Your task to perform on an android device: Open location settings Image 0: 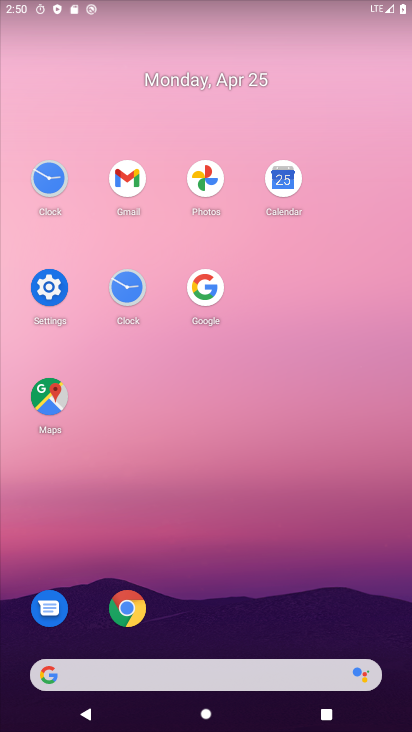
Step 0: click (53, 285)
Your task to perform on an android device: Open location settings Image 1: 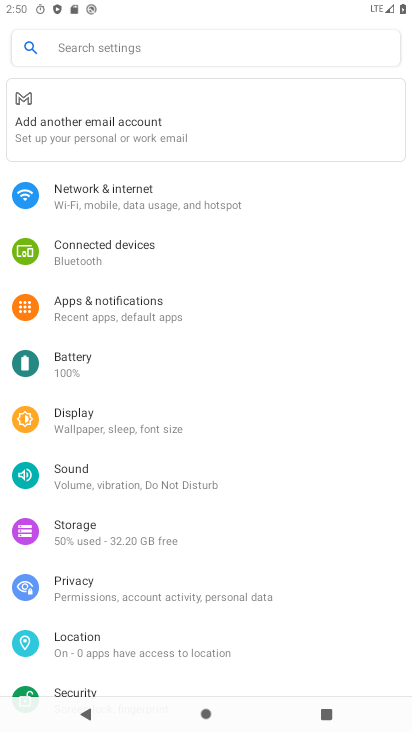
Step 1: click (114, 648)
Your task to perform on an android device: Open location settings Image 2: 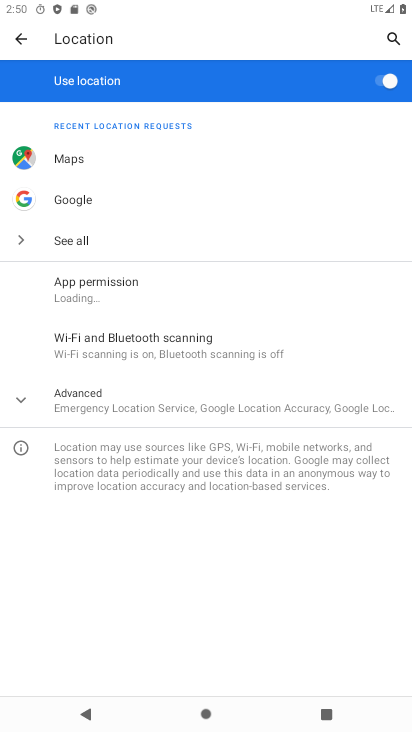
Step 2: task complete